Your task to perform on an android device: turn on priority inbox in the gmail app Image 0: 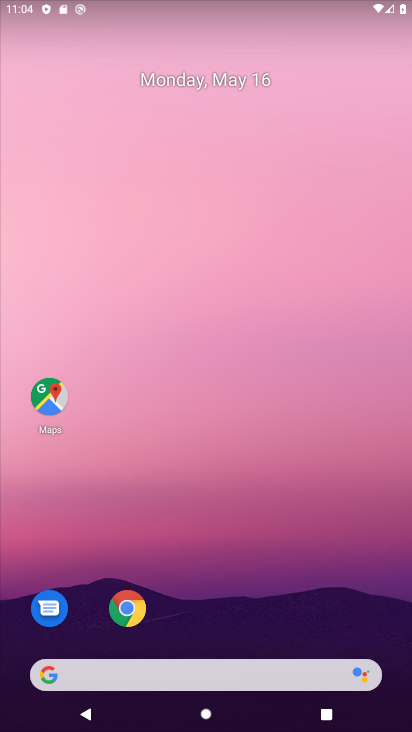
Step 0: drag from (198, 672) to (317, 171)
Your task to perform on an android device: turn on priority inbox in the gmail app Image 1: 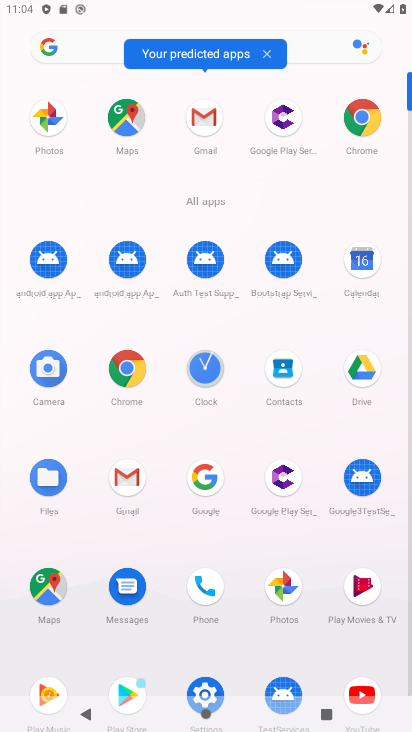
Step 1: click (207, 124)
Your task to perform on an android device: turn on priority inbox in the gmail app Image 2: 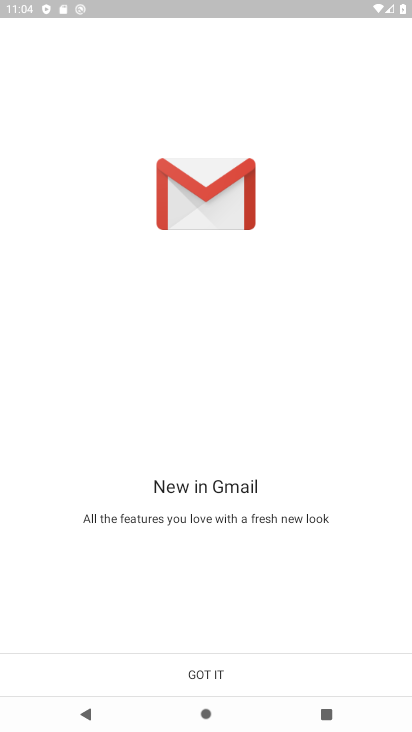
Step 2: click (215, 679)
Your task to perform on an android device: turn on priority inbox in the gmail app Image 3: 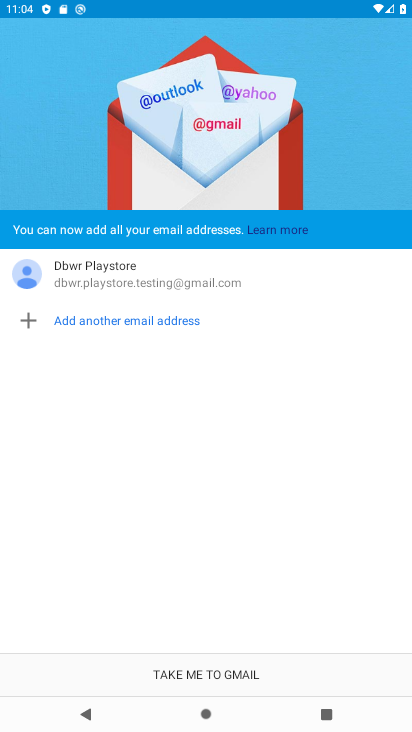
Step 3: click (215, 677)
Your task to perform on an android device: turn on priority inbox in the gmail app Image 4: 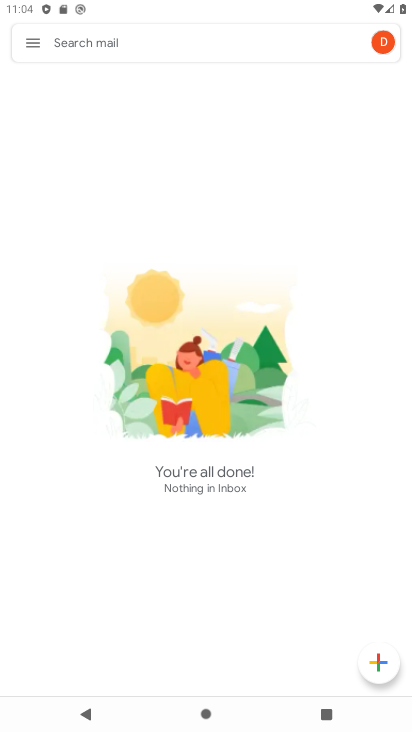
Step 4: click (30, 43)
Your task to perform on an android device: turn on priority inbox in the gmail app Image 5: 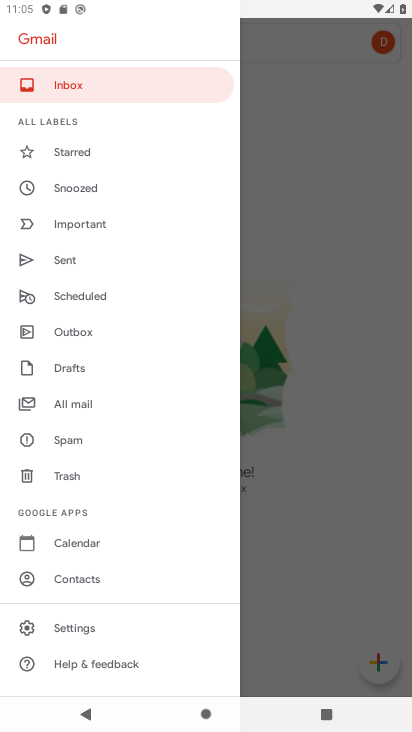
Step 5: click (90, 626)
Your task to perform on an android device: turn on priority inbox in the gmail app Image 6: 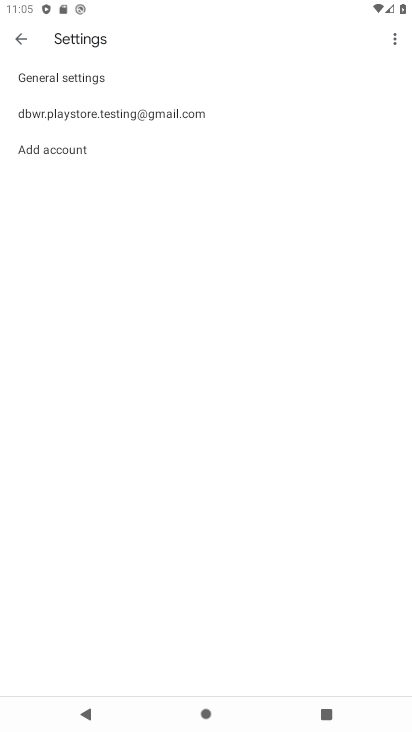
Step 6: click (144, 111)
Your task to perform on an android device: turn on priority inbox in the gmail app Image 7: 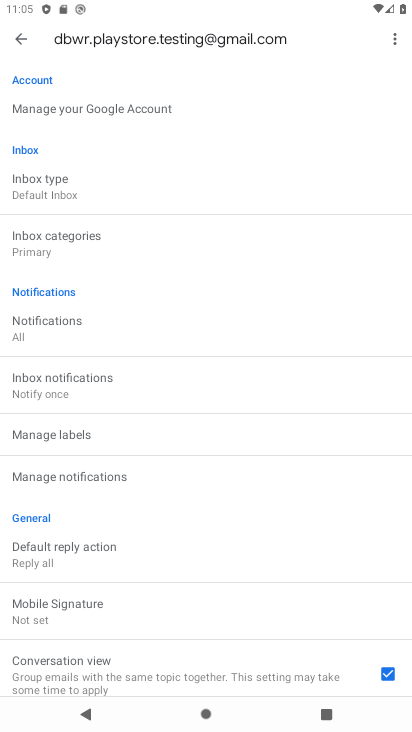
Step 7: click (39, 189)
Your task to perform on an android device: turn on priority inbox in the gmail app Image 8: 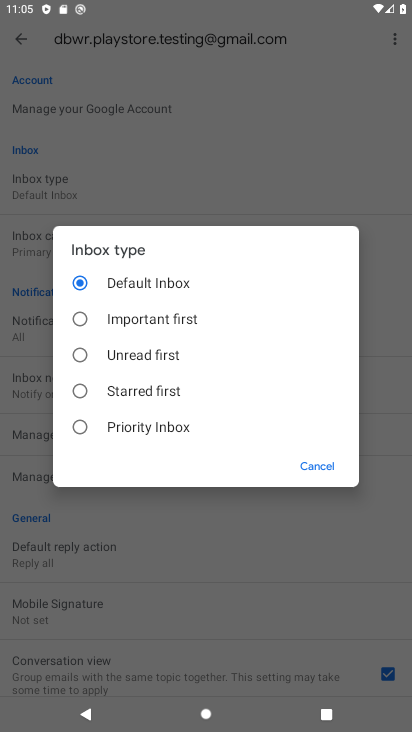
Step 8: click (73, 422)
Your task to perform on an android device: turn on priority inbox in the gmail app Image 9: 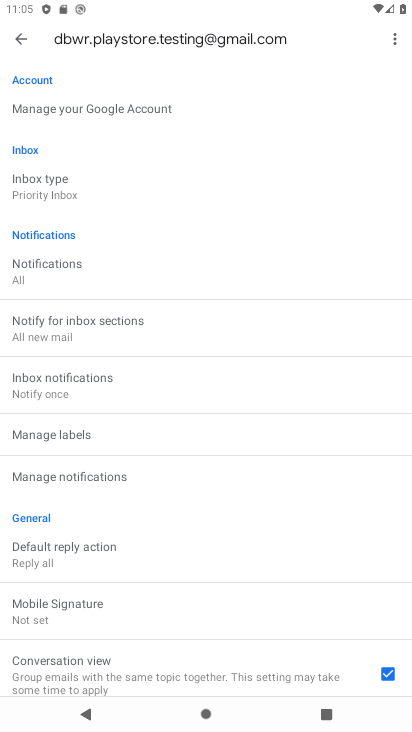
Step 9: task complete